Your task to perform on an android device: Go to Google Image 0: 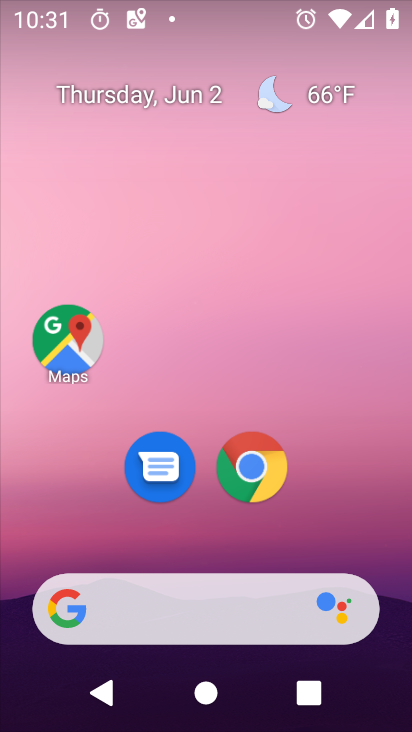
Step 0: press home button
Your task to perform on an android device: Go to Google Image 1: 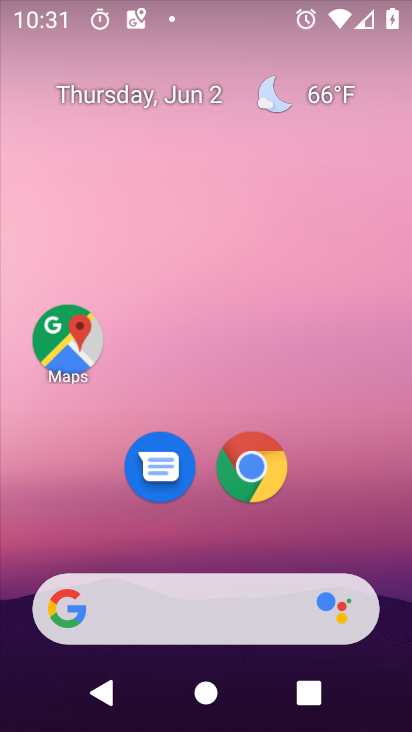
Step 1: click (114, 609)
Your task to perform on an android device: Go to Google Image 2: 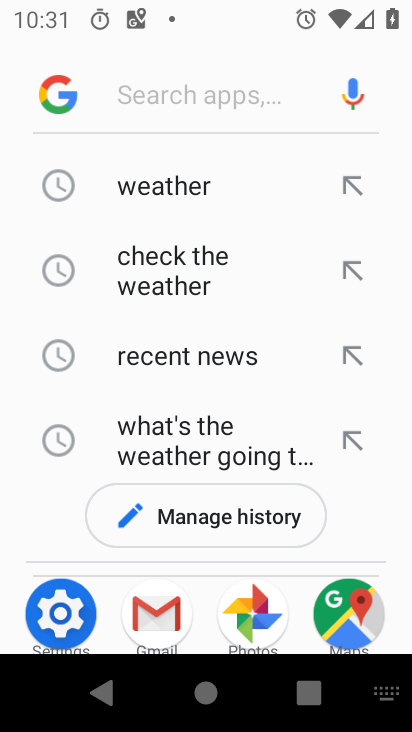
Step 2: click (54, 108)
Your task to perform on an android device: Go to Google Image 3: 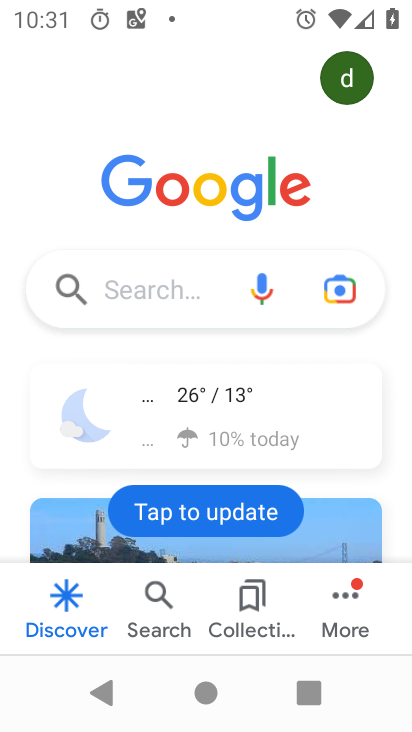
Step 3: task complete